Your task to perform on an android device: uninstall "Adobe Express: Graphic Design" Image 0: 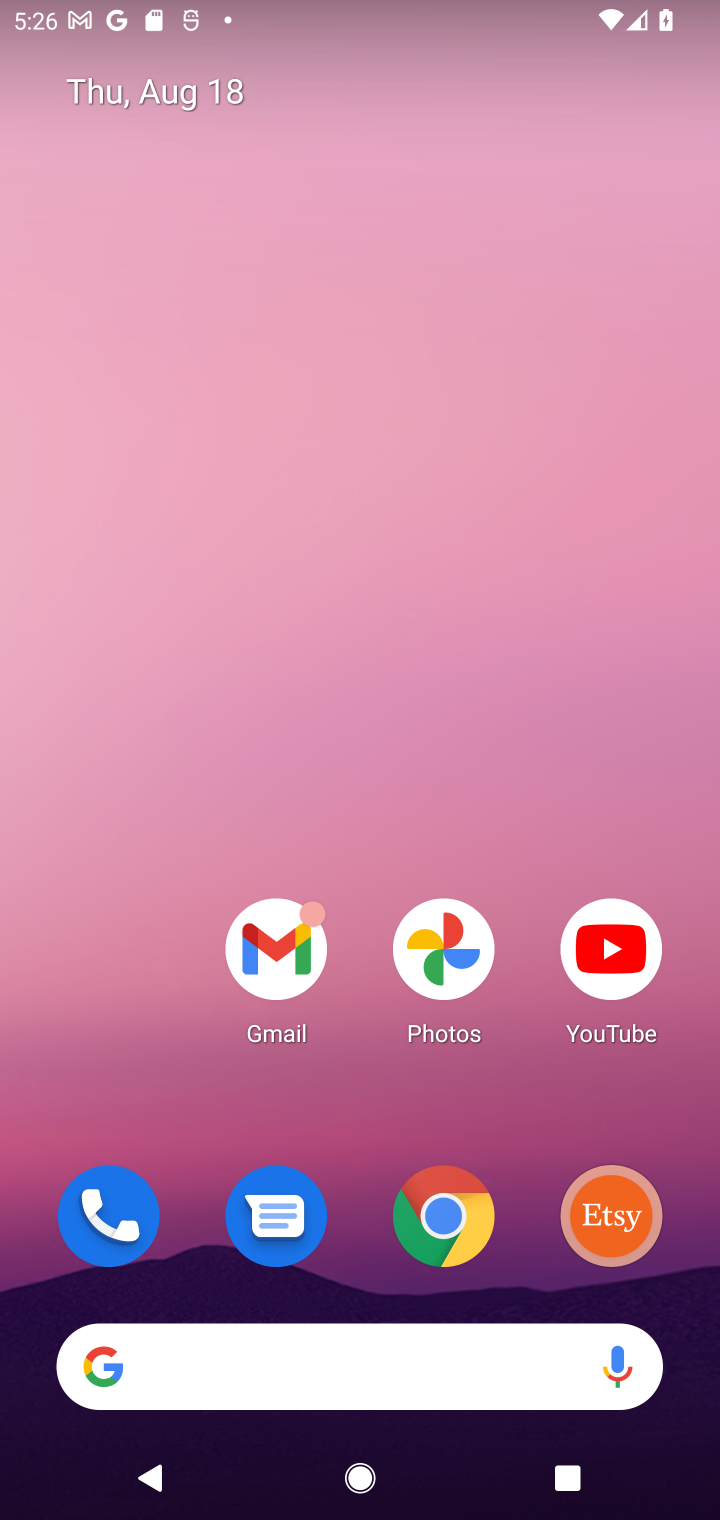
Step 0: drag from (636, 587) to (1, 564)
Your task to perform on an android device: uninstall "Adobe Express: Graphic Design" Image 1: 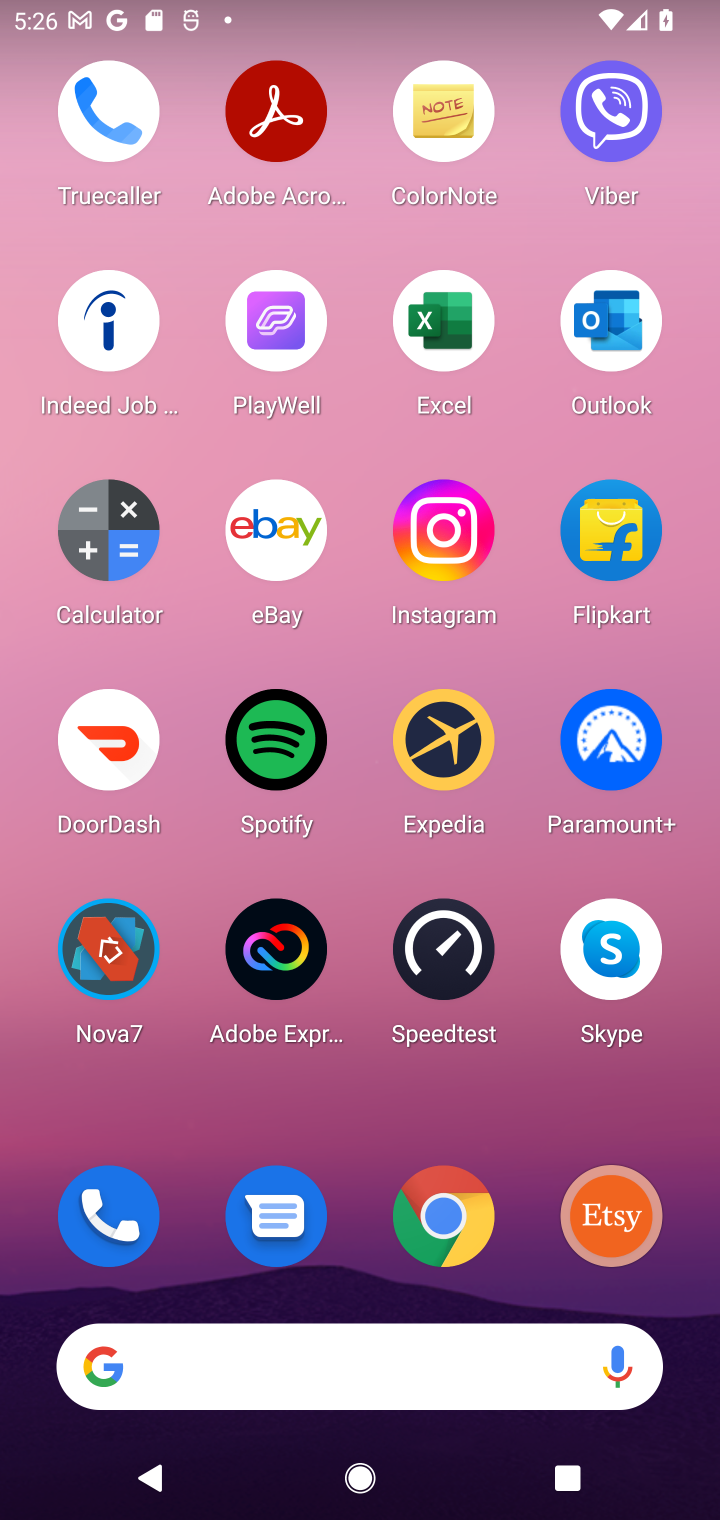
Step 1: click (278, 972)
Your task to perform on an android device: uninstall "Adobe Express: Graphic Design" Image 2: 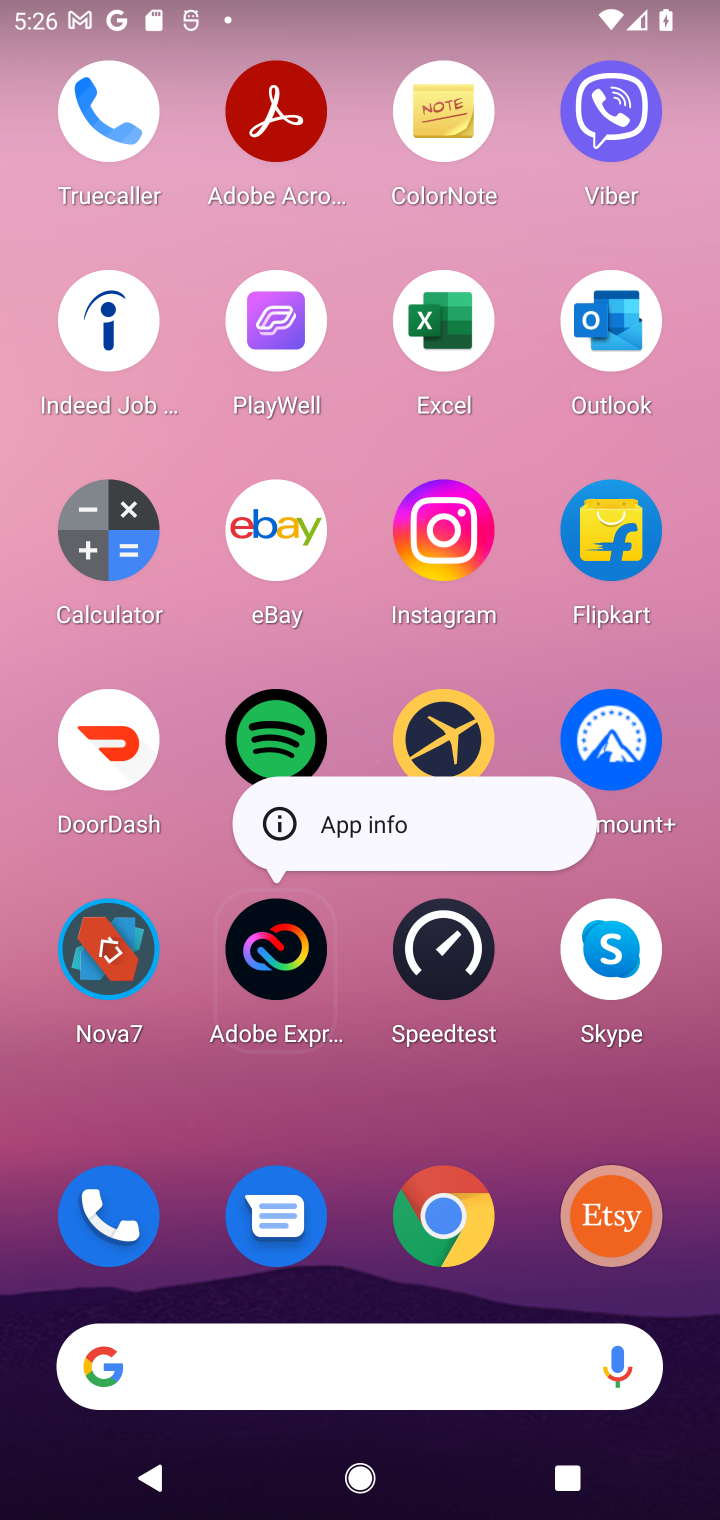
Step 2: click (280, 815)
Your task to perform on an android device: uninstall "Adobe Express: Graphic Design" Image 3: 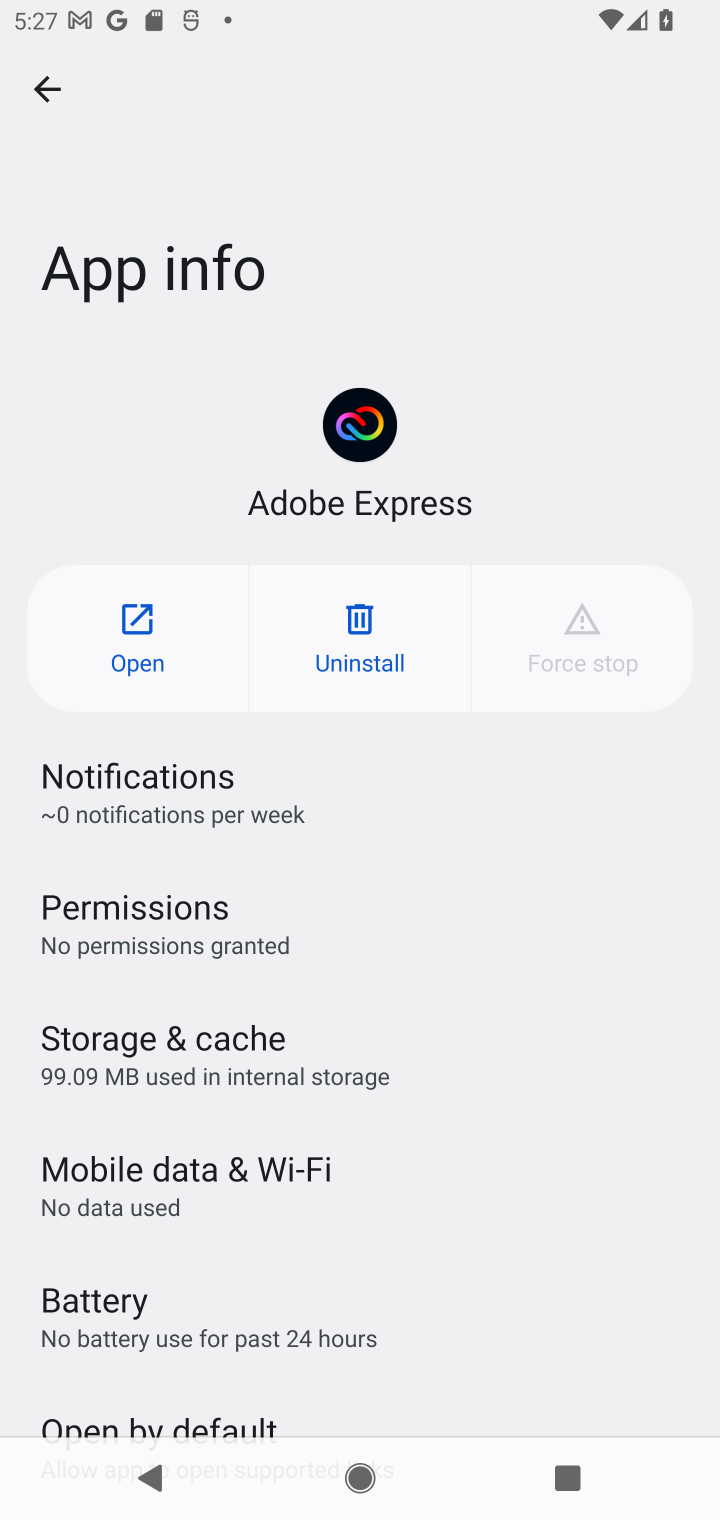
Step 3: press back button
Your task to perform on an android device: uninstall "Adobe Express: Graphic Design" Image 4: 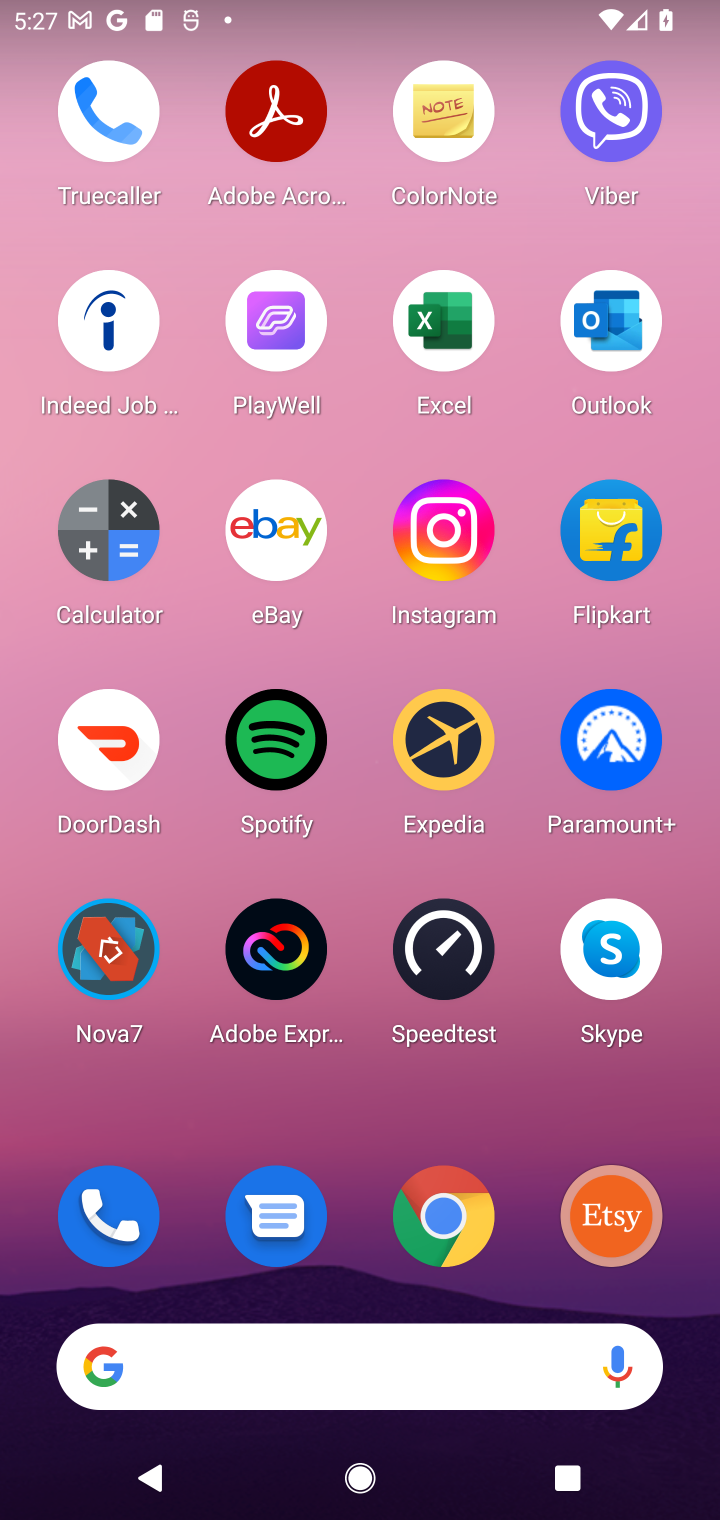
Step 4: drag from (263, 953) to (364, 426)
Your task to perform on an android device: uninstall "Adobe Express: Graphic Design" Image 5: 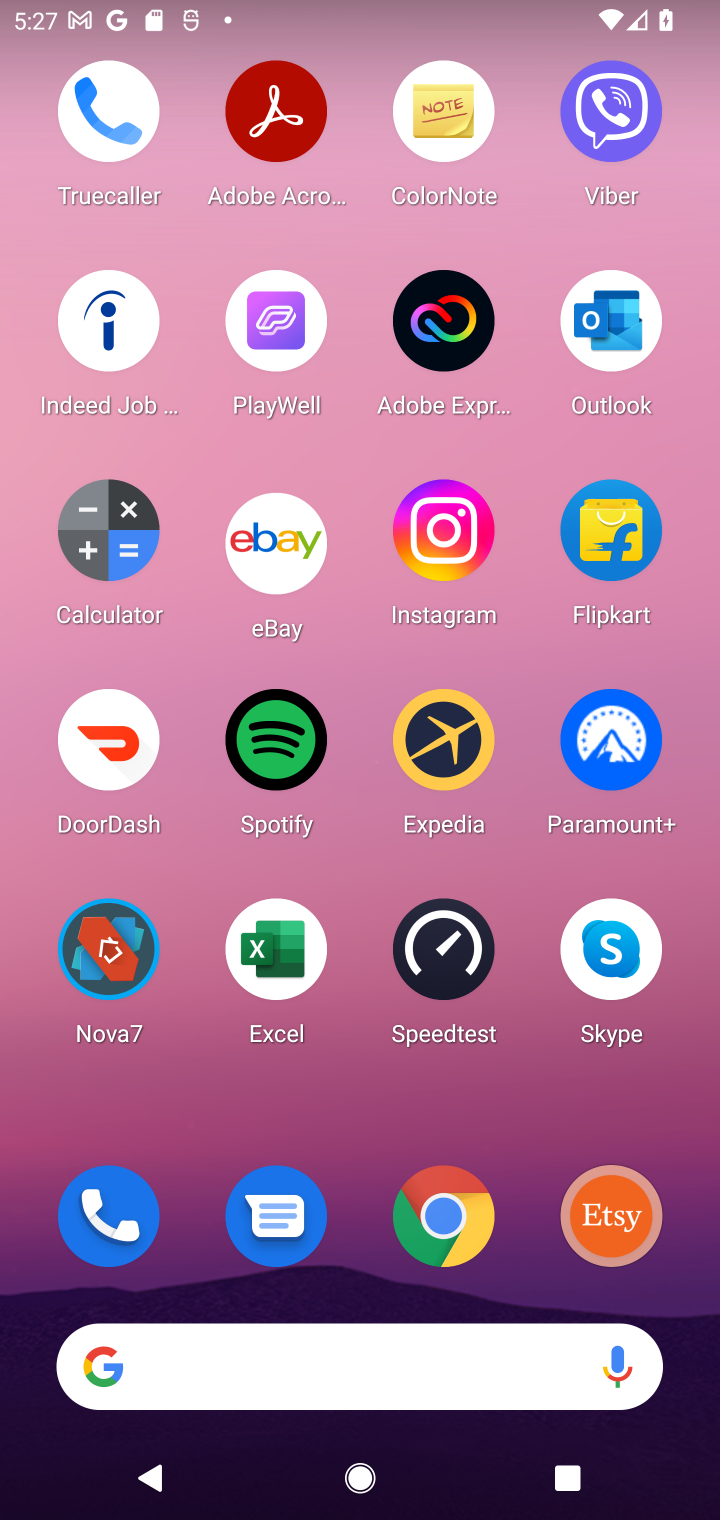
Step 5: drag from (442, 341) to (501, 79)
Your task to perform on an android device: uninstall "Adobe Express: Graphic Design" Image 6: 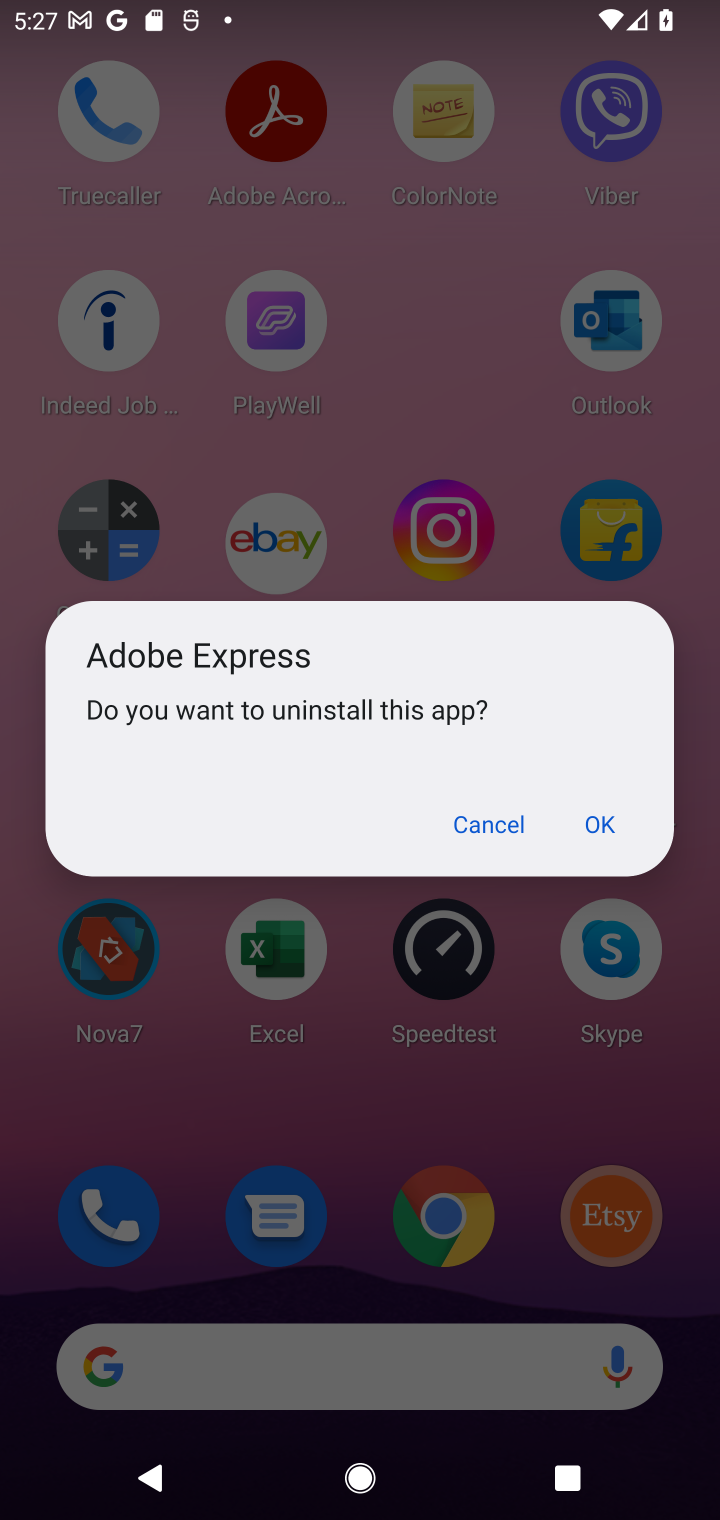
Step 6: click (599, 823)
Your task to perform on an android device: uninstall "Adobe Express: Graphic Design" Image 7: 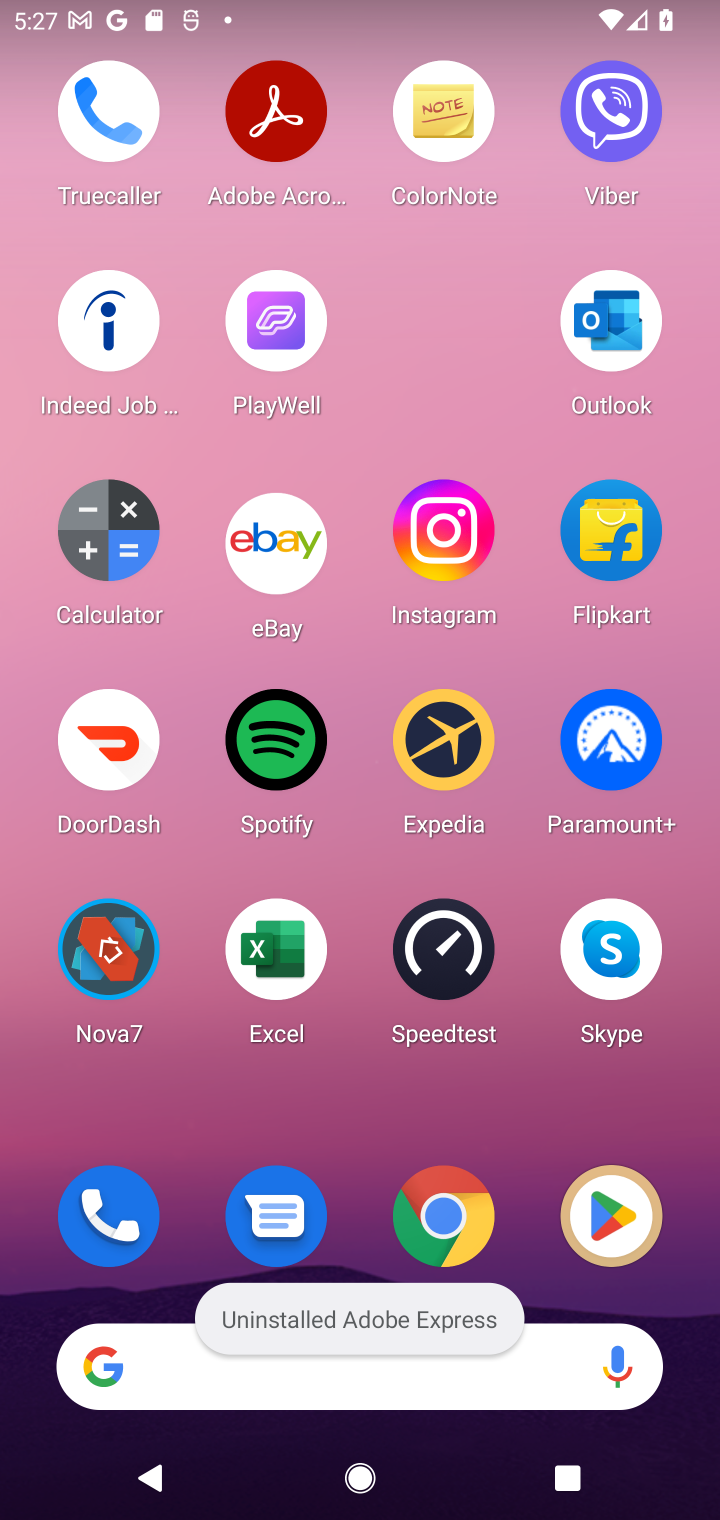
Step 7: task complete